Your task to perform on an android device: refresh tabs in the chrome app Image 0: 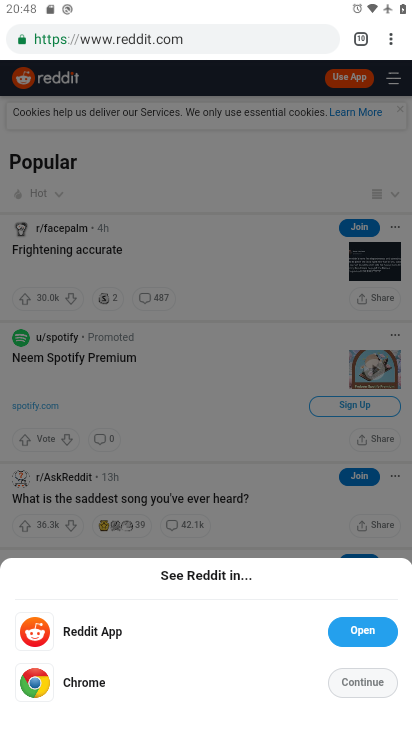
Step 0: click (391, 42)
Your task to perform on an android device: refresh tabs in the chrome app Image 1: 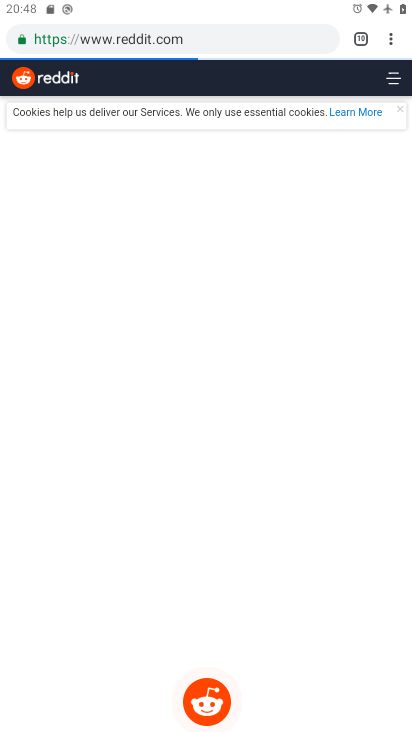
Step 1: click (385, 28)
Your task to perform on an android device: refresh tabs in the chrome app Image 2: 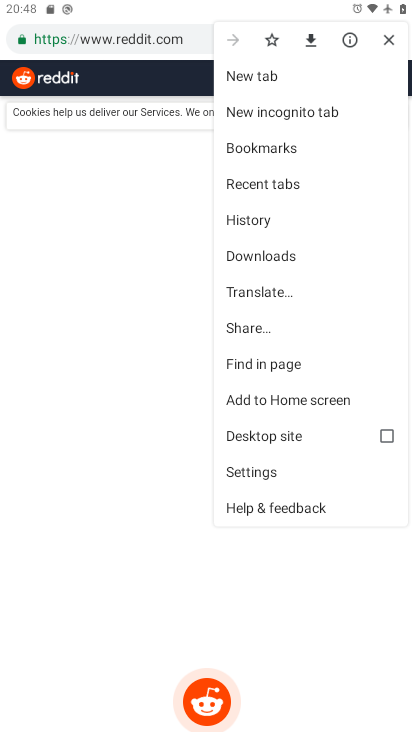
Step 2: click (264, 72)
Your task to perform on an android device: refresh tabs in the chrome app Image 3: 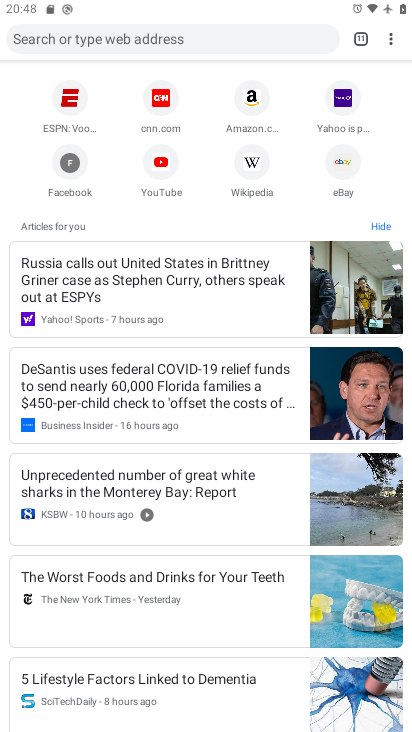
Step 3: click (385, 37)
Your task to perform on an android device: refresh tabs in the chrome app Image 4: 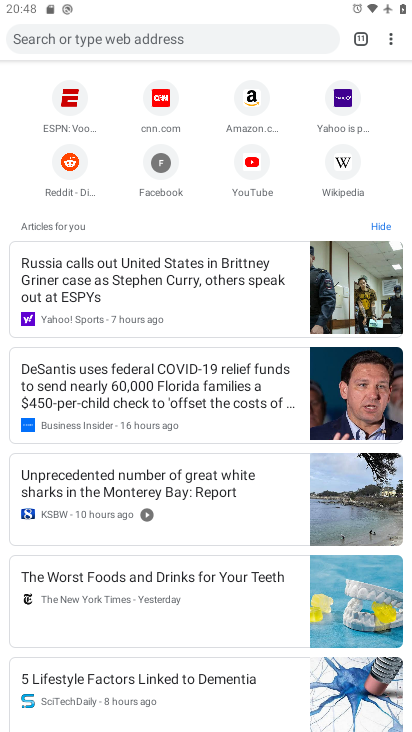
Step 4: click (367, 37)
Your task to perform on an android device: refresh tabs in the chrome app Image 5: 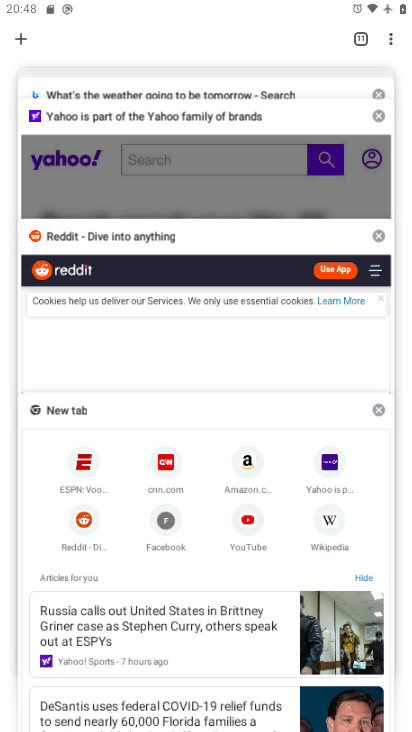
Step 5: click (376, 29)
Your task to perform on an android device: refresh tabs in the chrome app Image 6: 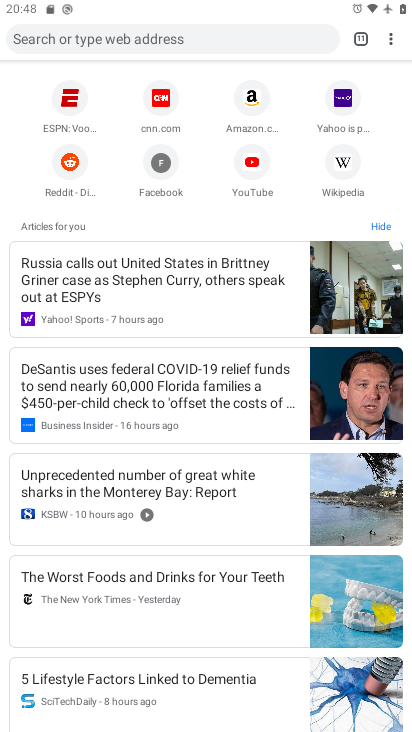
Step 6: click (376, 29)
Your task to perform on an android device: refresh tabs in the chrome app Image 7: 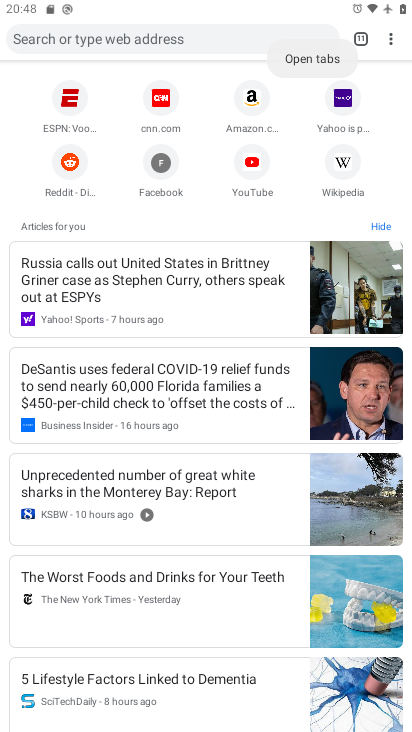
Step 7: click (386, 29)
Your task to perform on an android device: refresh tabs in the chrome app Image 8: 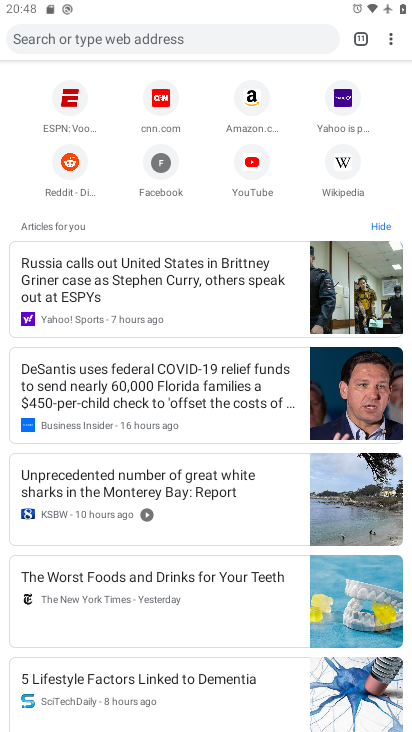
Step 8: click (386, 29)
Your task to perform on an android device: refresh tabs in the chrome app Image 9: 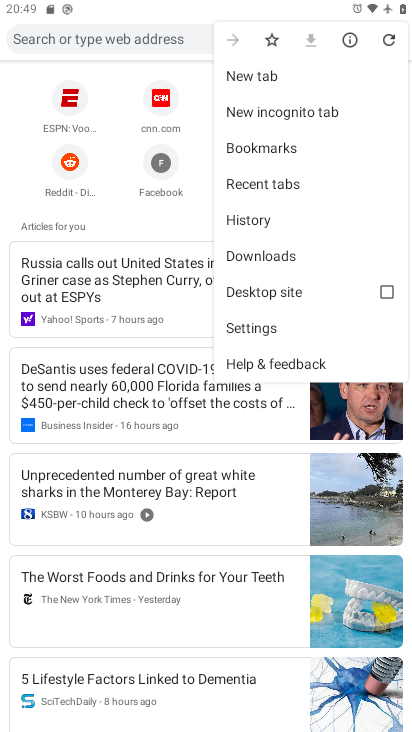
Step 9: click (384, 36)
Your task to perform on an android device: refresh tabs in the chrome app Image 10: 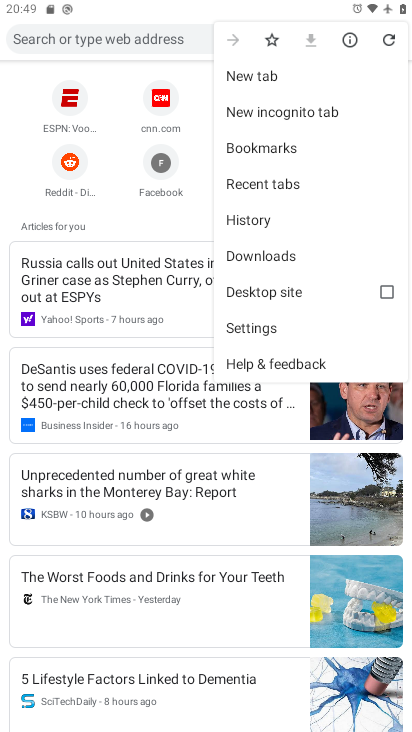
Step 10: click (384, 38)
Your task to perform on an android device: refresh tabs in the chrome app Image 11: 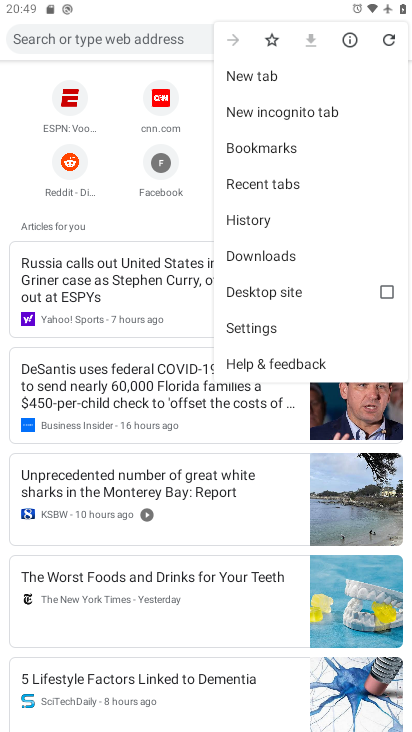
Step 11: click (397, 38)
Your task to perform on an android device: refresh tabs in the chrome app Image 12: 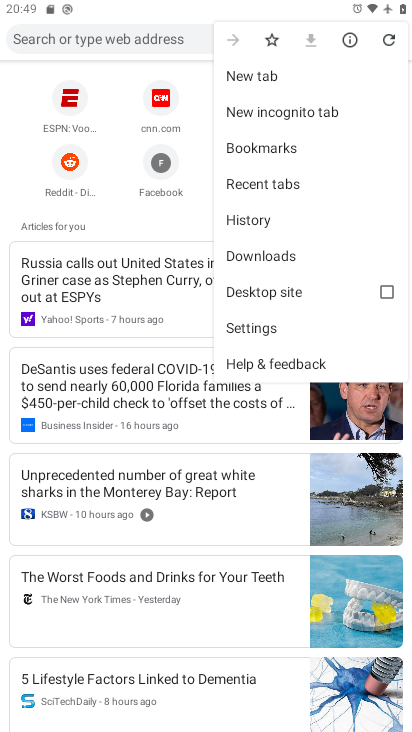
Step 12: task complete